Your task to perform on an android device: toggle notification dots Image 0: 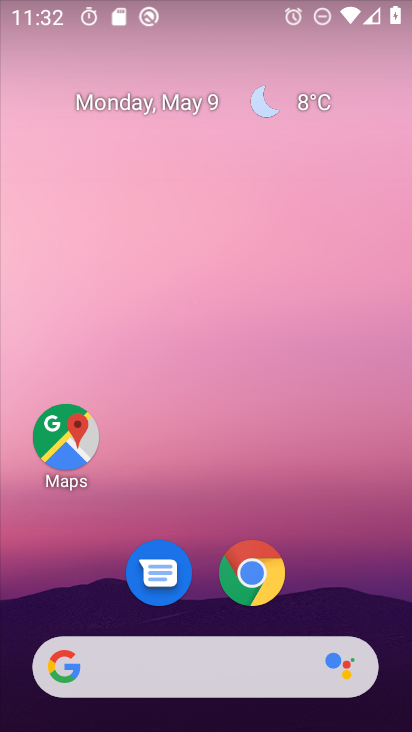
Step 0: drag from (336, 548) to (226, 115)
Your task to perform on an android device: toggle notification dots Image 1: 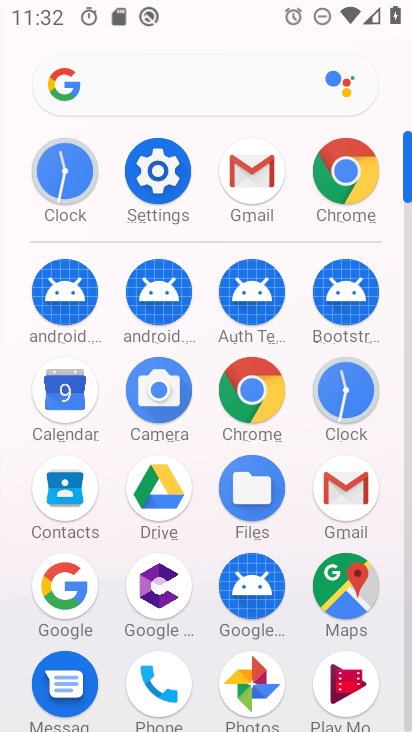
Step 1: click (149, 178)
Your task to perform on an android device: toggle notification dots Image 2: 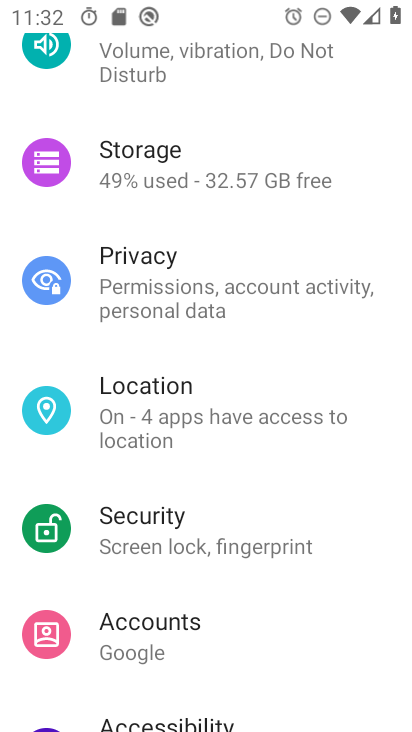
Step 2: drag from (274, 609) to (253, 227)
Your task to perform on an android device: toggle notification dots Image 3: 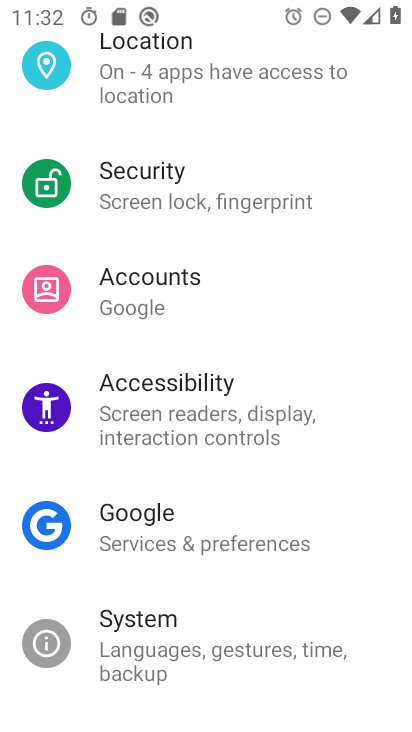
Step 3: click (281, 654)
Your task to perform on an android device: toggle notification dots Image 4: 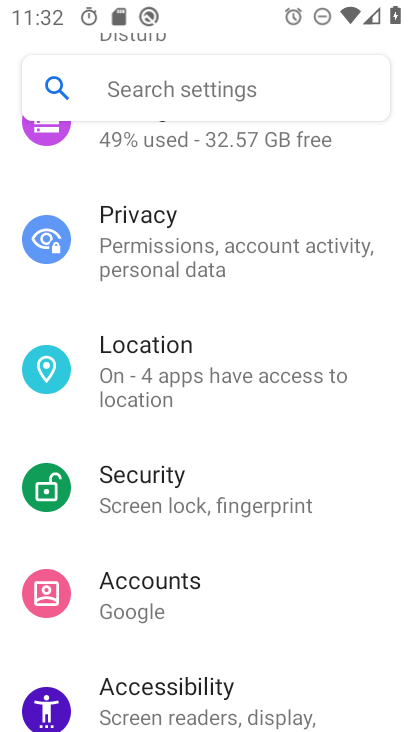
Step 4: drag from (261, 273) to (278, 694)
Your task to perform on an android device: toggle notification dots Image 5: 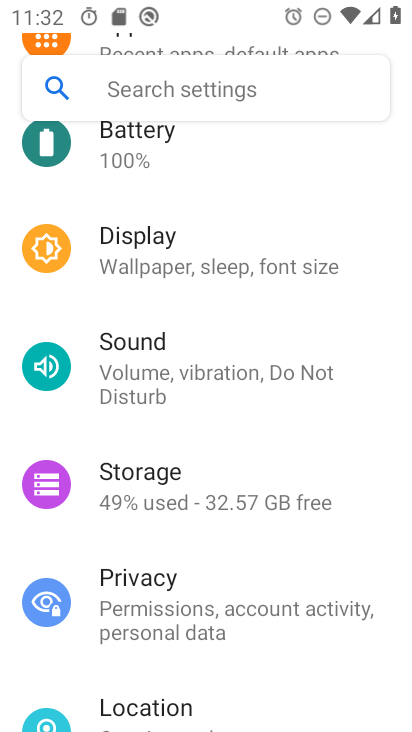
Step 5: drag from (236, 185) to (276, 569)
Your task to perform on an android device: toggle notification dots Image 6: 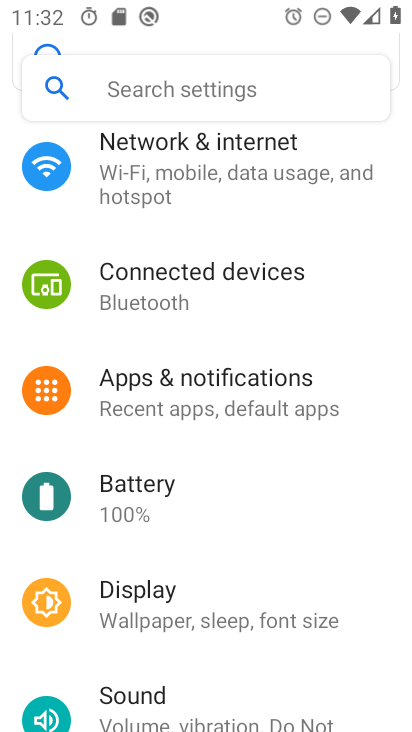
Step 6: click (229, 376)
Your task to perform on an android device: toggle notification dots Image 7: 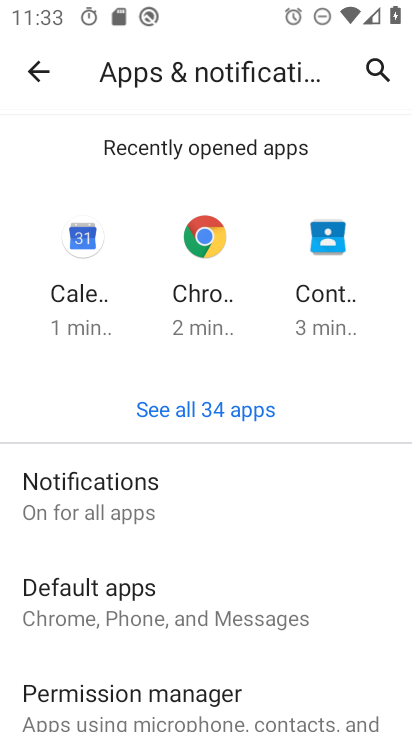
Step 7: click (127, 485)
Your task to perform on an android device: toggle notification dots Image 8: 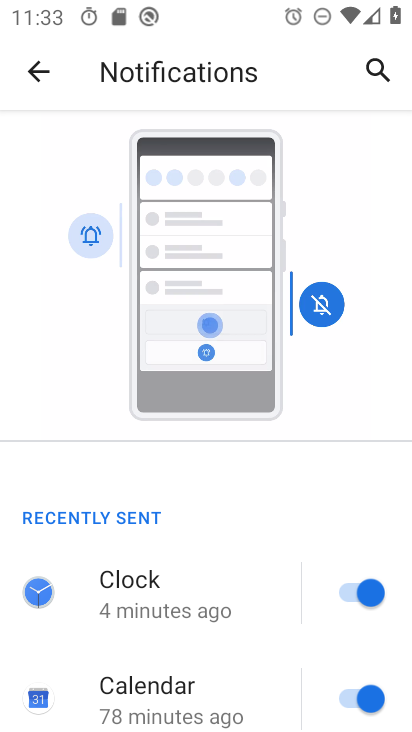
Step 8: drag from (199, 525) to (259, 25)
Your task to perform on an android device: toggle notification dots Image 9: 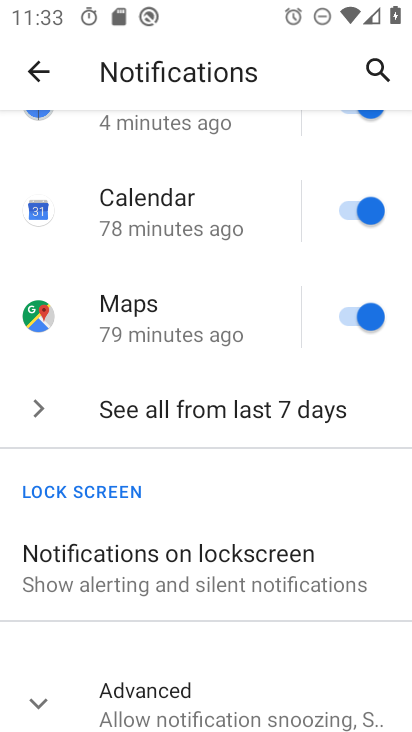
Step 9: drag from (240, 559) to (254, 275)
Your task to perform on an android device: toggle notification dots Image 10: 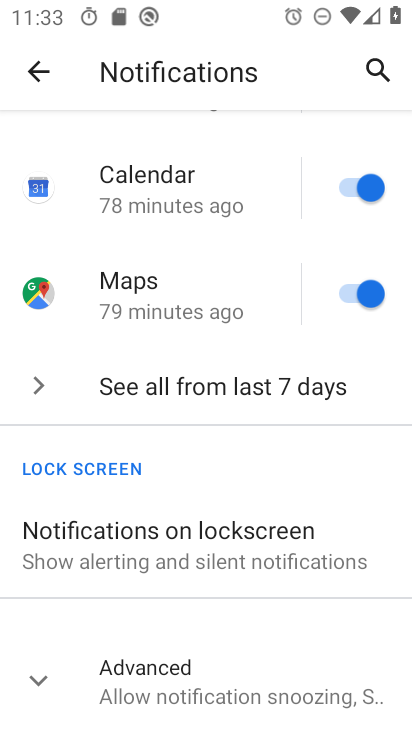
Step 10: drag from (260, 627) to (290, 167)
Your task to perform on an android device: toggle notification dots Image 11: 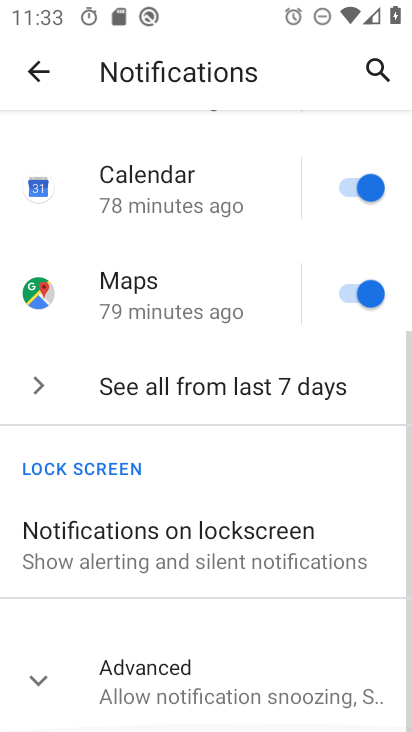
Step 11: click (155, 684)
Your task to perform on an android device: toggle notification dots Image 12: 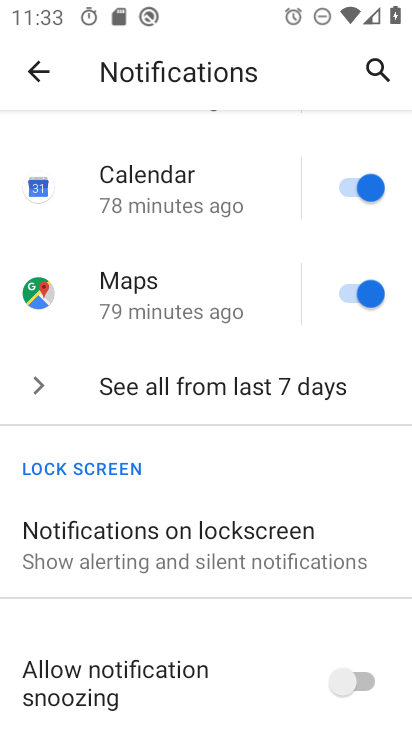
Step 12: drag from (213, 624) to (212, 270)
Your task to perform on an android device: toggle notification dots Image 13: 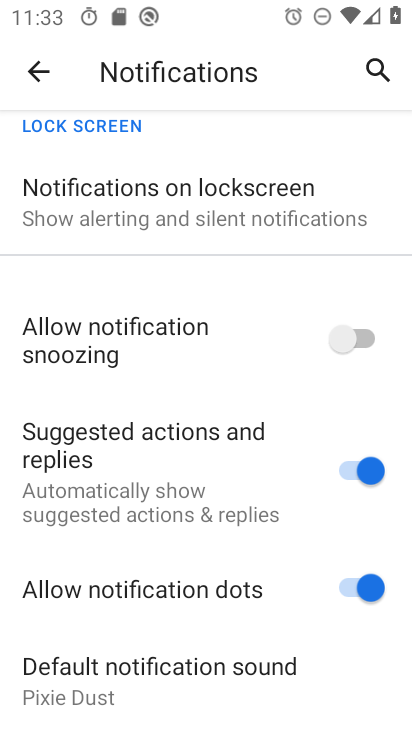
Step 13: click (369, 581)
Your task to perform on an android device: toggle notification dots Image 14: 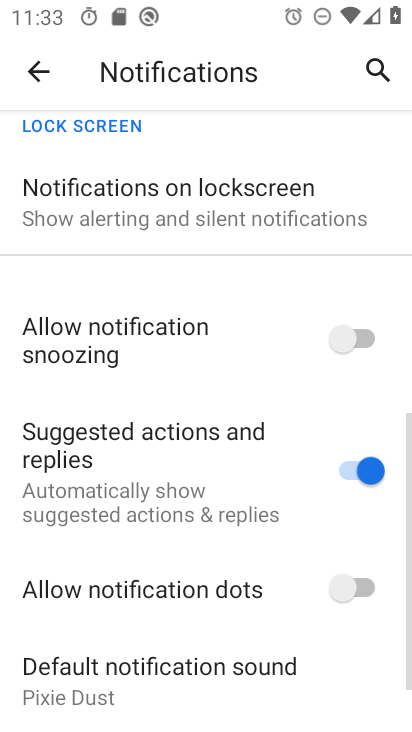
Step 14: task complete